Your task to perform on an android device: Go to CNN.com Image 0: 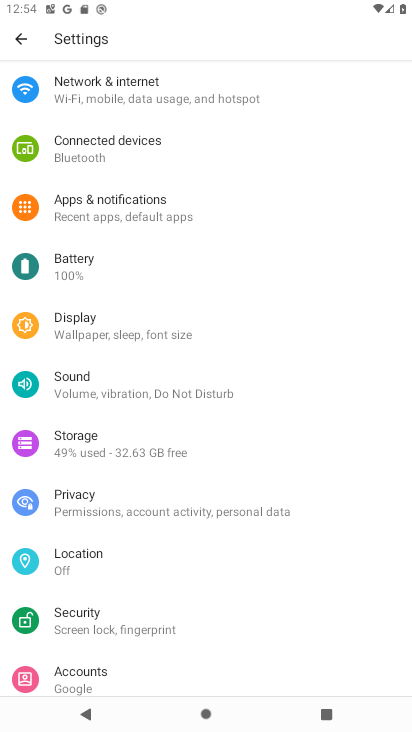
Step 0: press home button
Your task to perform on an android device: Go to CNN.com Image 1: 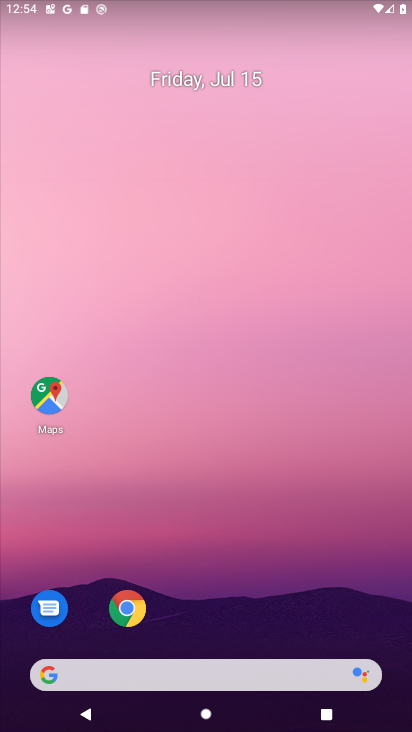
Step 1: click (125, 621)
Your task to perform on an android device: Go to CNN.com Image 2: 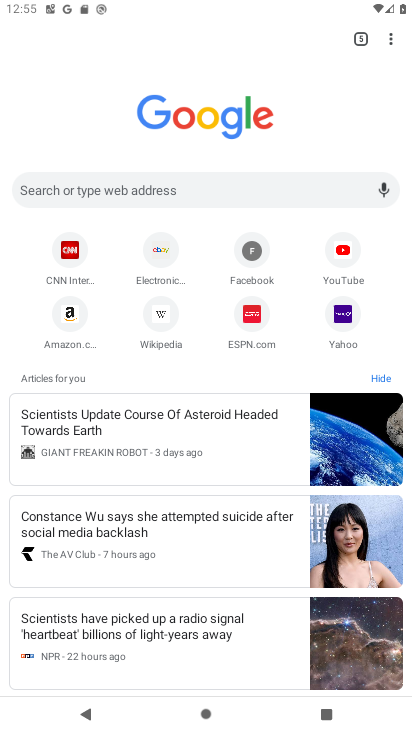
Step 2: click (190, 181)
Your task to perform on an android device: Go to CNN.com Image 3: 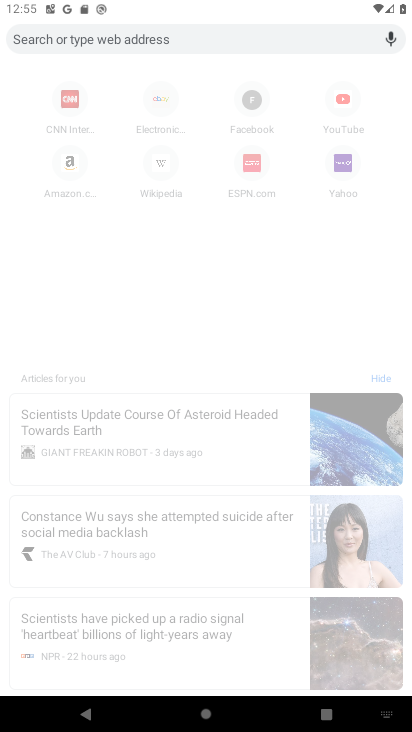
Step 3: type "cnn.com"
Your task to perform on an android device: Go to CNN.com Image 4: 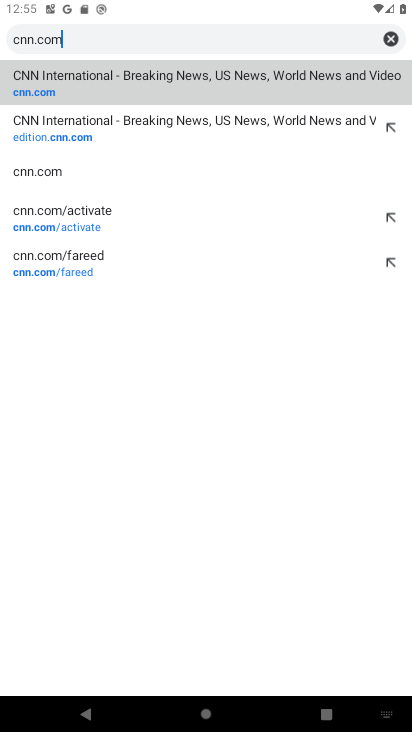
Step 4: click (74, 73)
Your task to perform on an android device: Go to CNN.com Image 5: 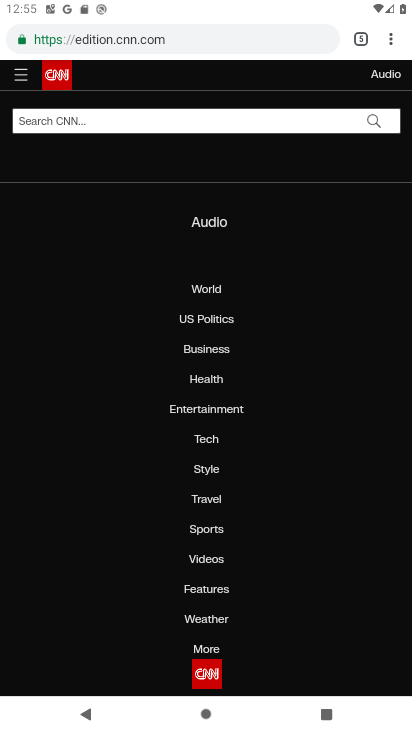
Step 5: task complete